Your task to perform on an android device: move a message to another label in the gmail app Image 0: 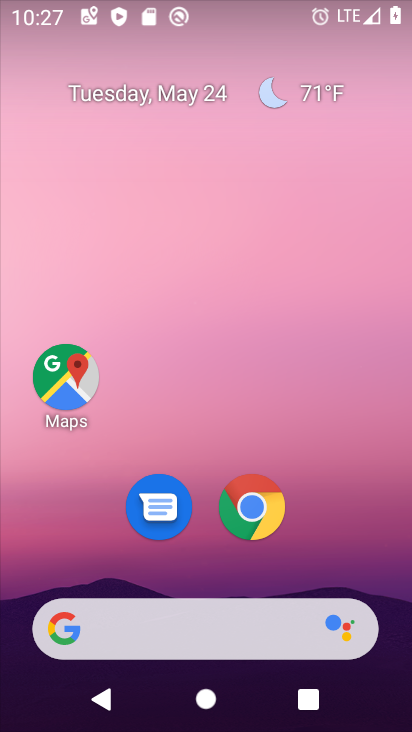
Step 0: drag from (234, 671) to (237, 112)
Your task to perform on an android device: move a message to another label in the gmail app Image 1: 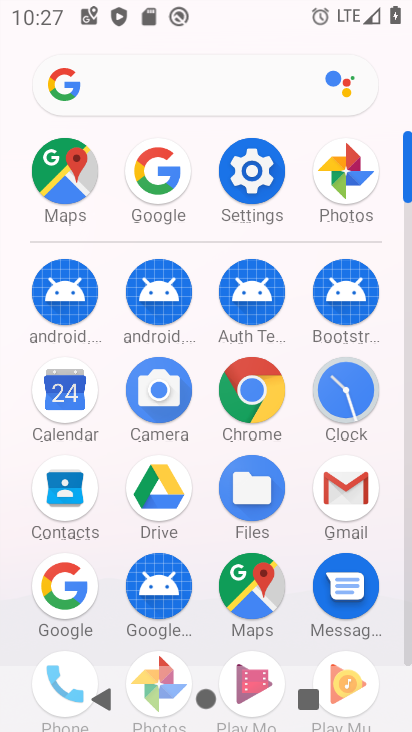
Step 1: click (339, 495)
Your task to perform on an android device: move a message to another label in the gmail app Image 2: 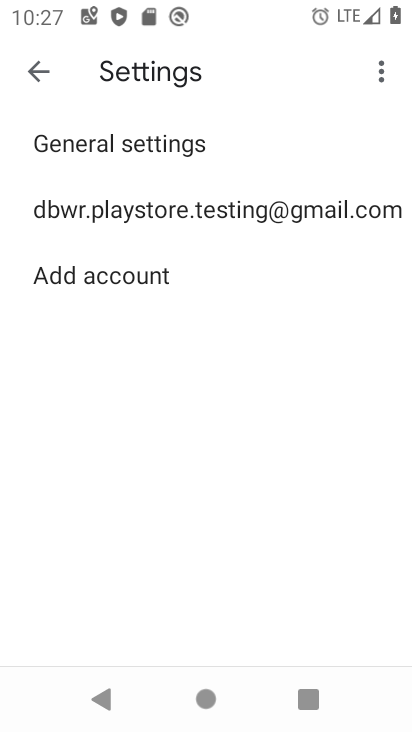
Step 2: click (35, 68)
Your task to perform on an android device: move a message to another label in the gmail app Image 3: 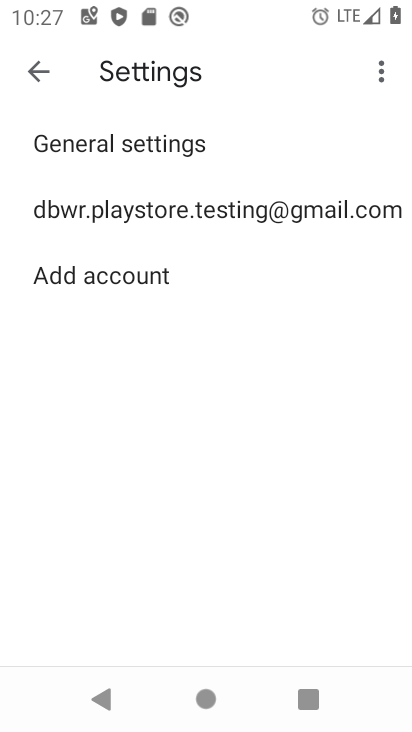
Step 3: click (37, 68)
Your task to perform on an android device: move a message to another label in the gmail app Image 4: 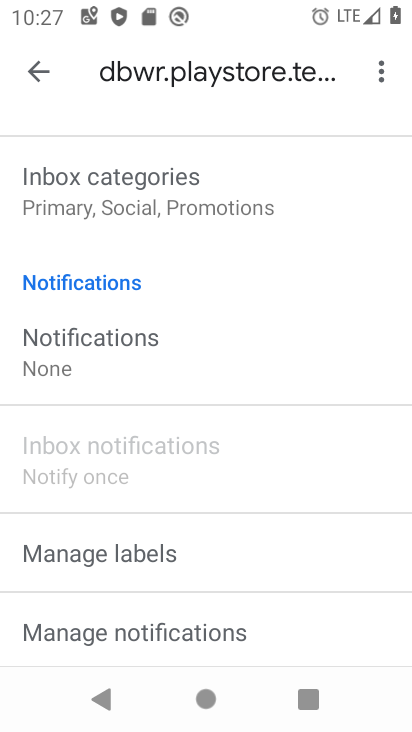
Step 4: click (41, 65)
Your task to perform on an android device: move a message to another label in the gmail app Image 5: 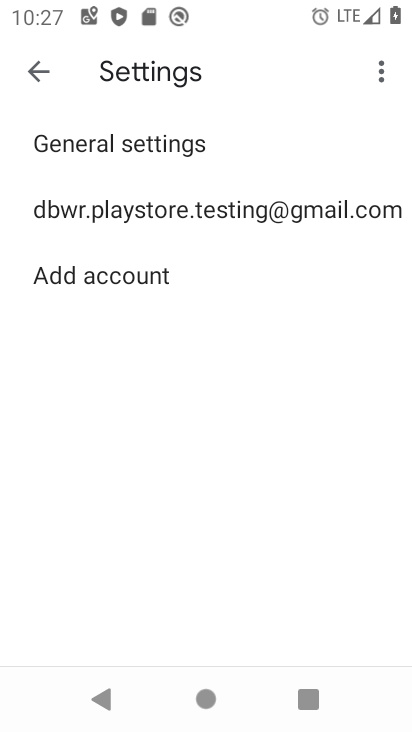
Step 5: click (31, 71)
Your task to perform on an android device: move a message to another label in the gmail app Image 6: 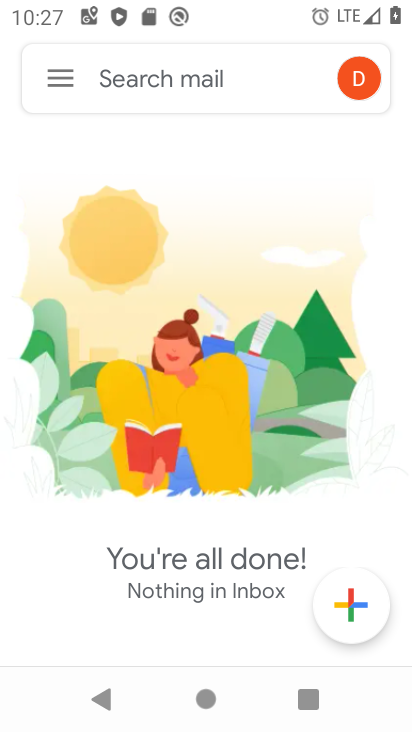
Step 6: task complete